Your task to perform on an android device: open app "Google Docs" Image 0: 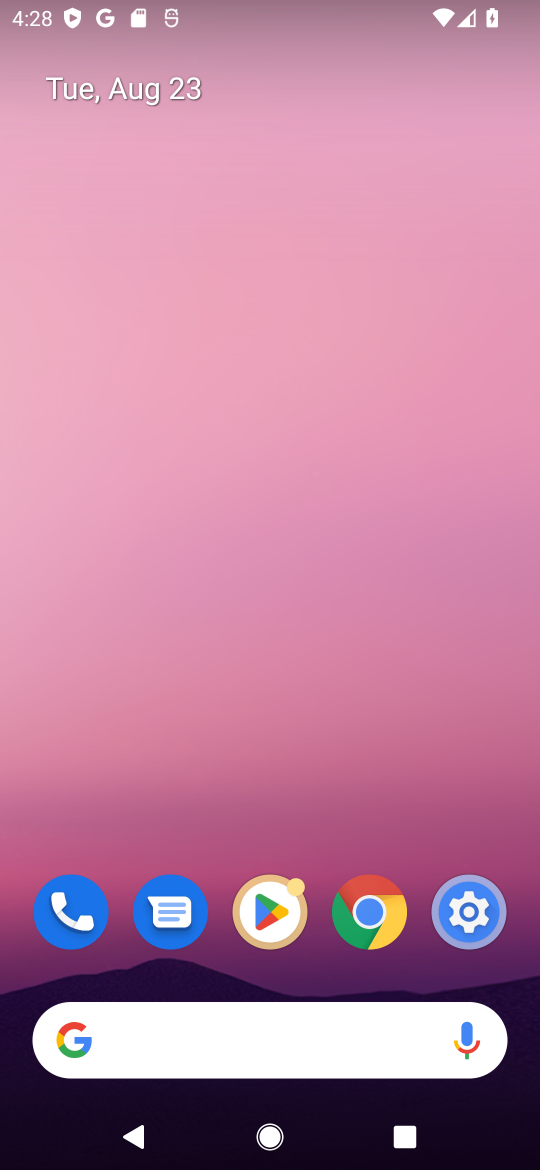
Step 0: drag from (285, 964) to (313, 280)
Your task to perform on an android device: open app "Google Docs" Image 1: 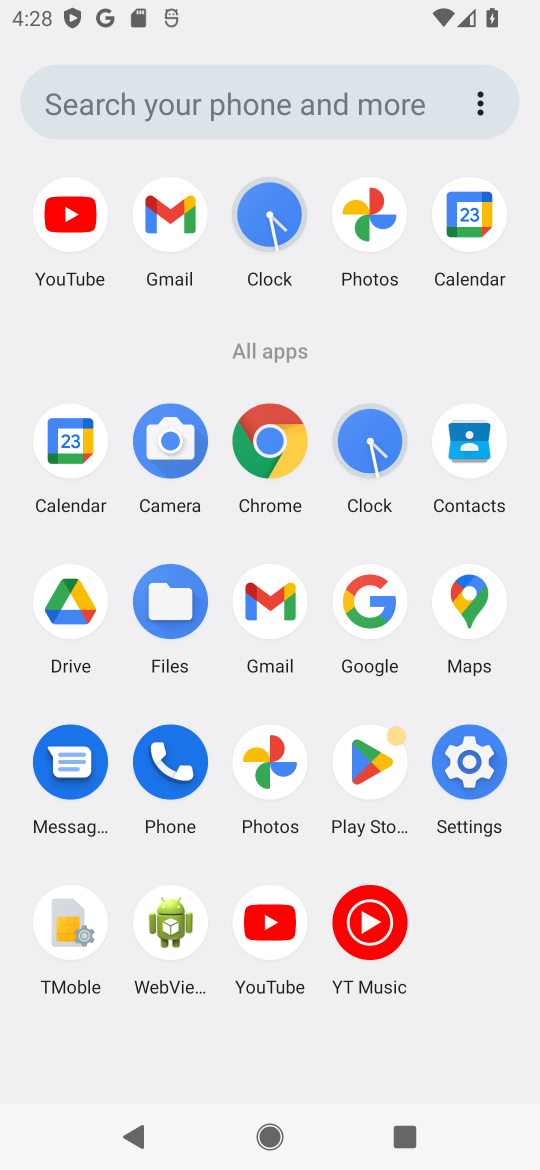
Step 1: click (377, 750)
Your task to perform on an android device: open app "Google Docs" Image 2: 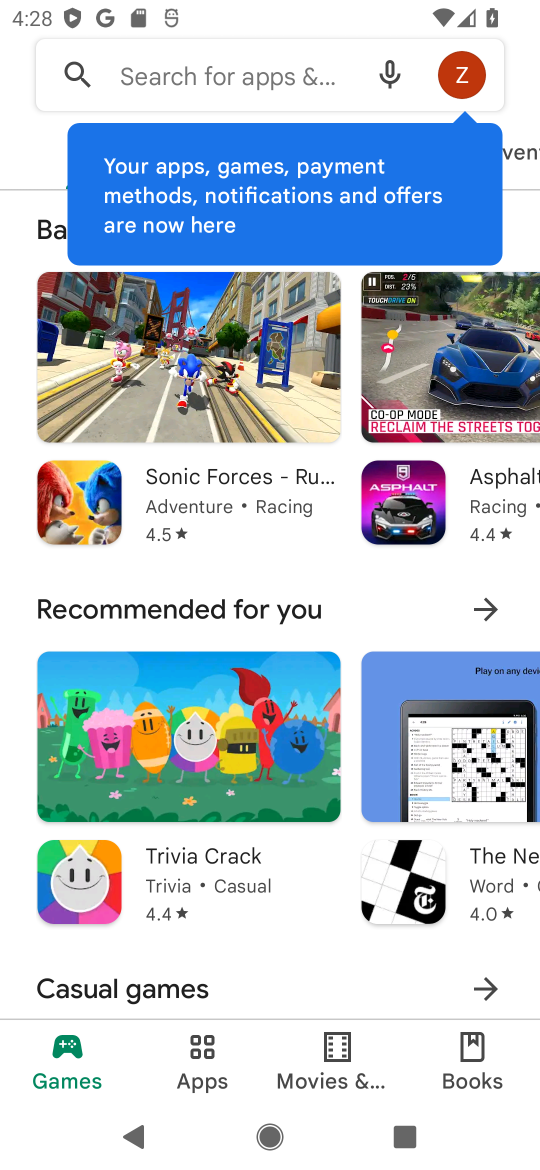
Step 2: click (134, 64)
Your task to perform on an android device: open app "Google Docs" Image 3: 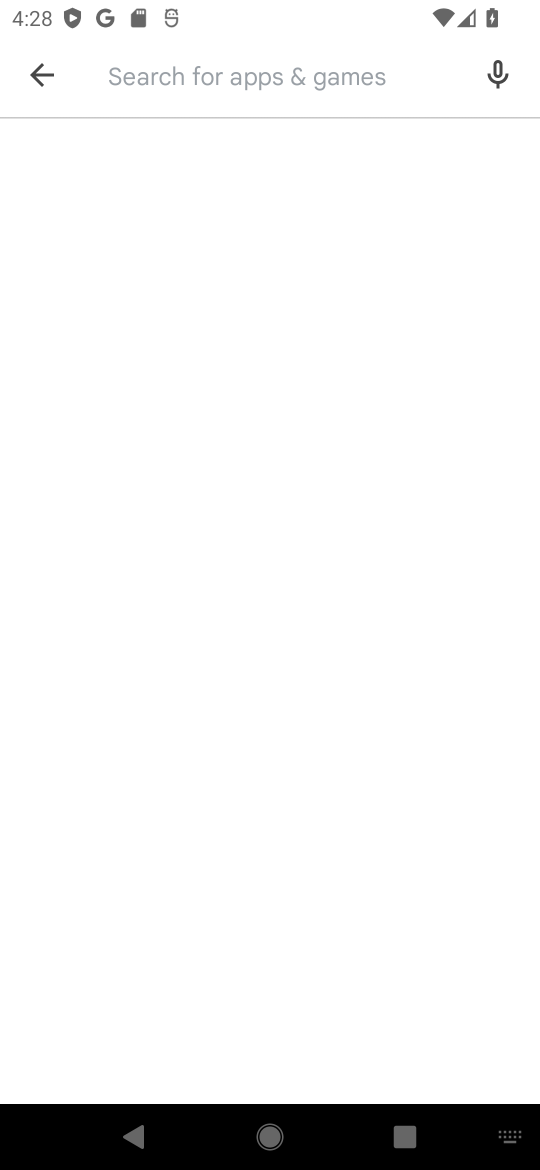
Step 3: type "google docs "
Your task to perform on an android device: open app "Google Docs" Image 4: 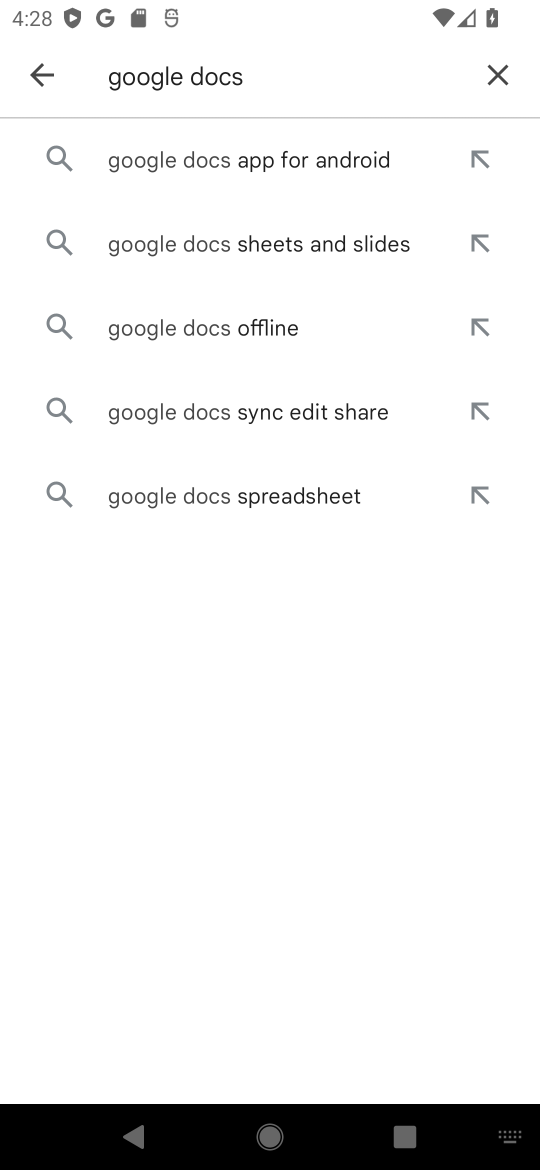
Step 4: click (273, 142)
Your task to perform on an android device: open app "Google Docs" Image 5: 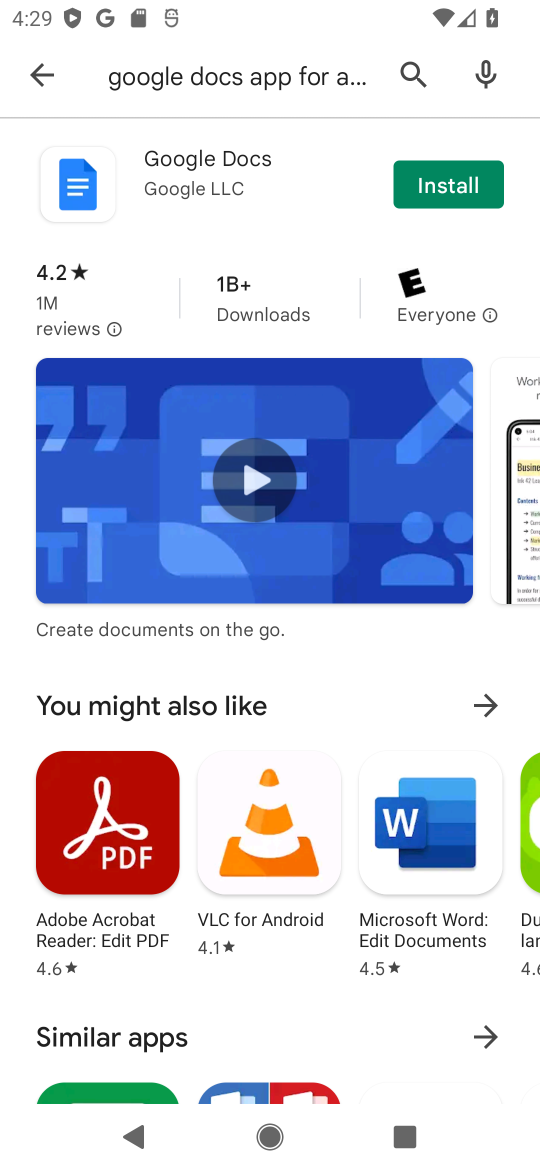
Step 5: click (448, 182)
Your task to perform on an android device: open app "Google Docs" Image 6: 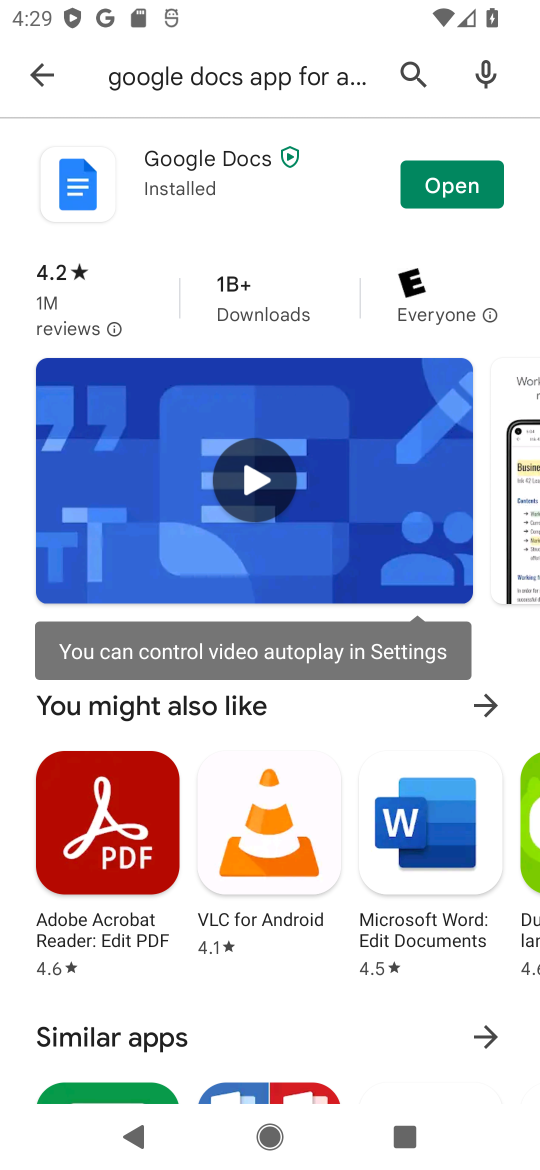
Step 6: task complete